Your task to perform on an android device: Turn on the flashlight Image 0: 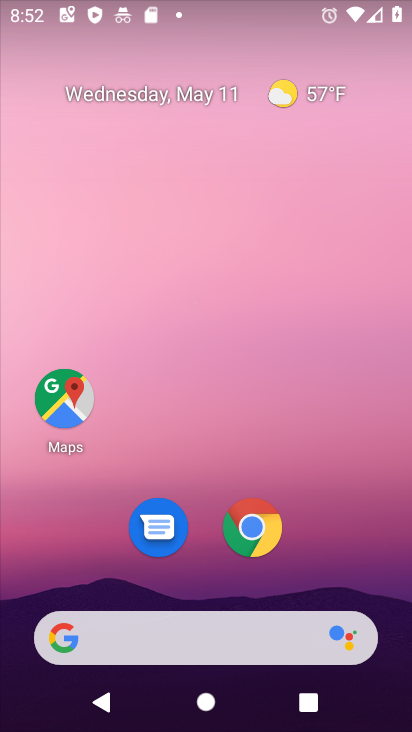
Step 0: drag from (189, 5) to (193, 692)
Your task to perform on an android device: Turn on the flashlight Image 1: 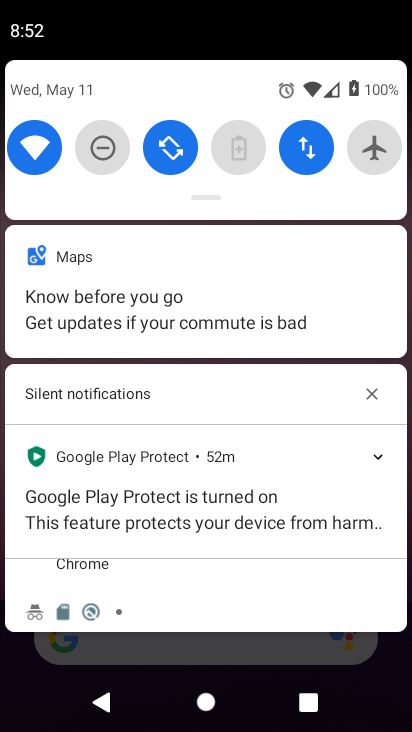
Step 1: task complete